Your task to perform on an android device: open app "Google Play services" Image 0: 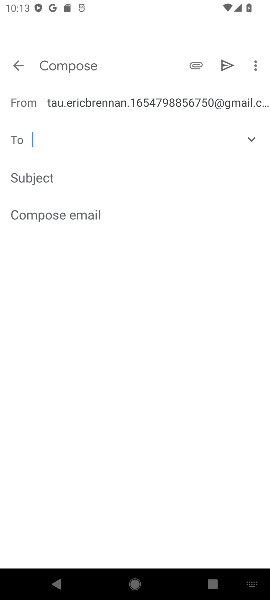
Step 0: press home button
Your task to perform on an android device: open app "Google Play services" Image 1: 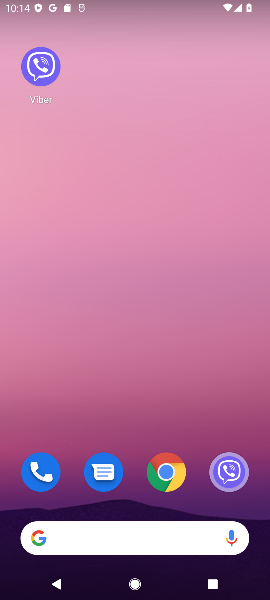
Step 1: drag from (134, 506) to (144, 114)
Your task to perform on an android device: open app "Google Play services" Image 2: 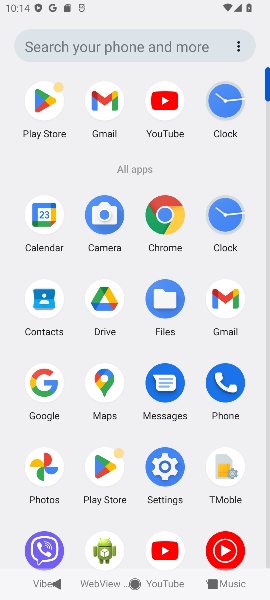
Step 2: click (106, 477)
Your task to perform on an android device: open app "Google Play services" Image 3: 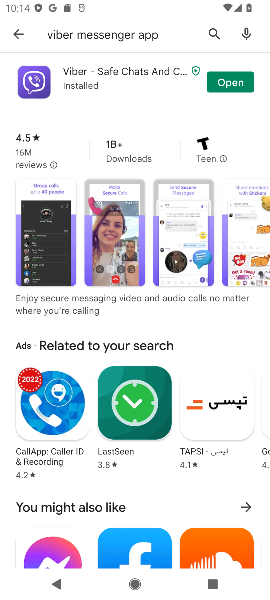
Step 3: click (121, 32)
Your task to perform on an android device: open app "Google Play services" Image 4: 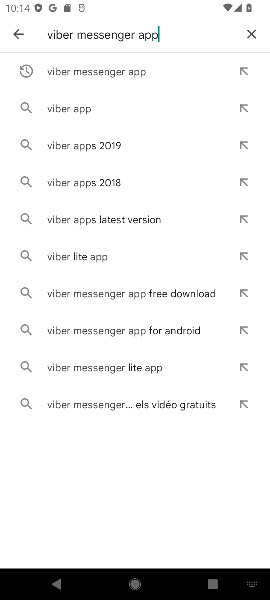
Step 4: click (251, 27)
Your task to perform on an android device: open app "Google Play services" Image 5: 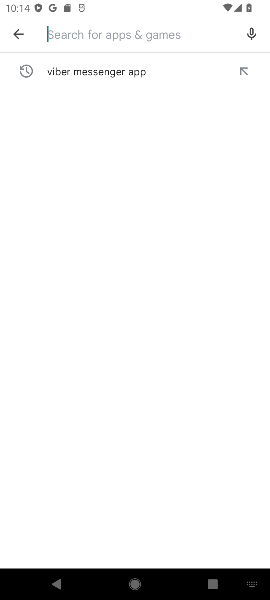
Step 5: type "google play srvices"
Your task to perform on an android device: open app "Google Play services" Image 6: 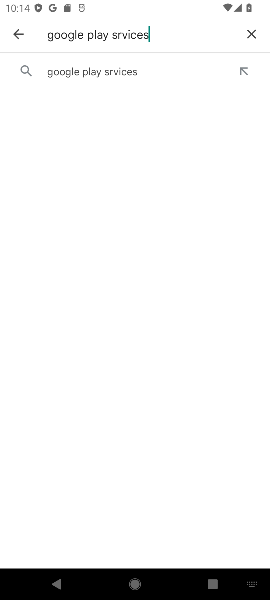
Step 6: click (120, 74)
Your task to perform on an android device: open app "Google Play services" Image 7: 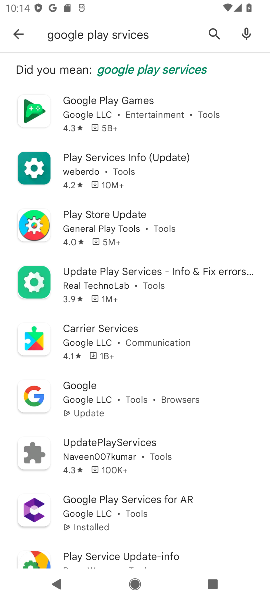
Step 7: click (137, 161)
Your task to perform on an android device: open app "Google Play services" Image 8: 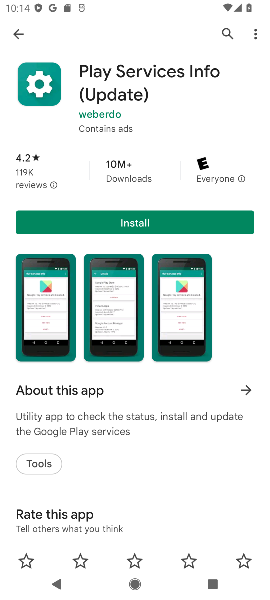
Step 8: task complete